Your task to perform on an android device: read, delete, or share a saved page in the chrome app Image 0: 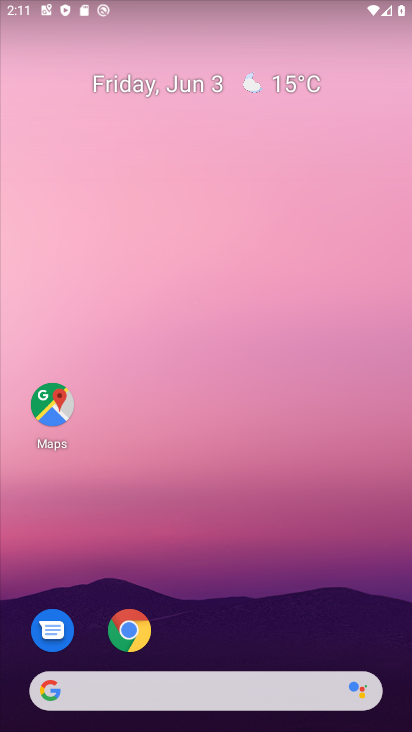
Step 0: drag from (309, 500) to (239, 48)
Your task to perform on an android device: read, delete, or share a saved page in the chrome app Image 1: 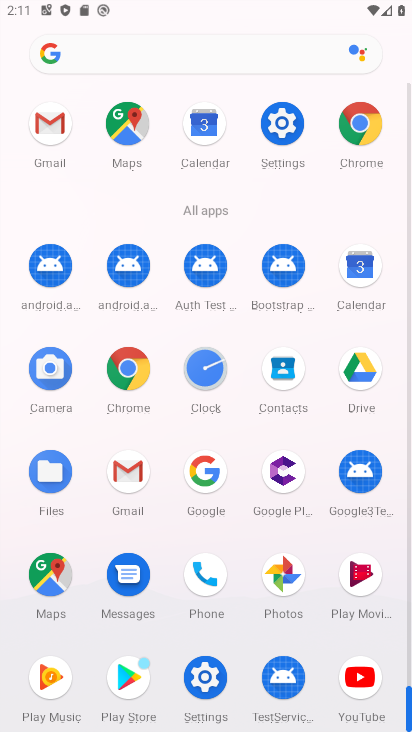
Step 1: drag from (11, 478) to (0, 201)
Your task to perform on an android device: read, delete, or share a saved page in the chrome app Image 2: 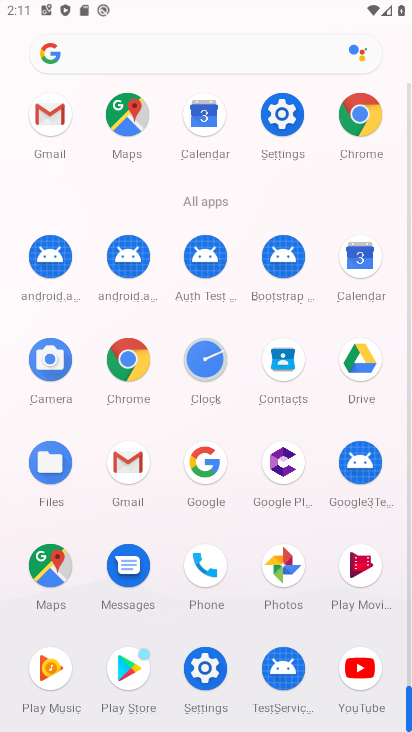
Step 2: click (129, 355)
Your task to perform on an android device: read, delete, or share a saved page in the chrome app Image 3: 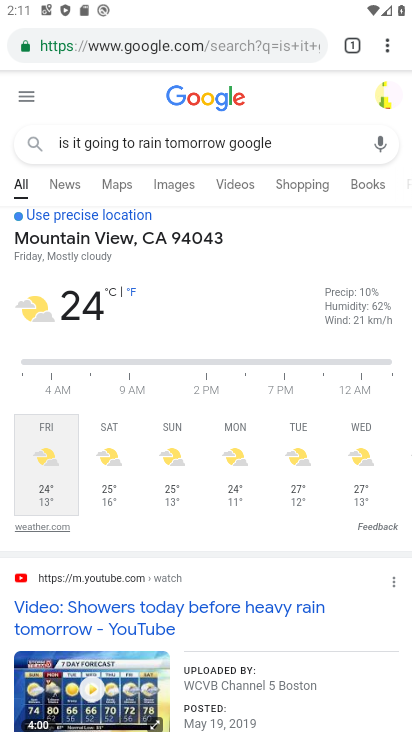
Step 3: task complete